Your task to perform on an android device: Do I have any events this weekend? Image 0: 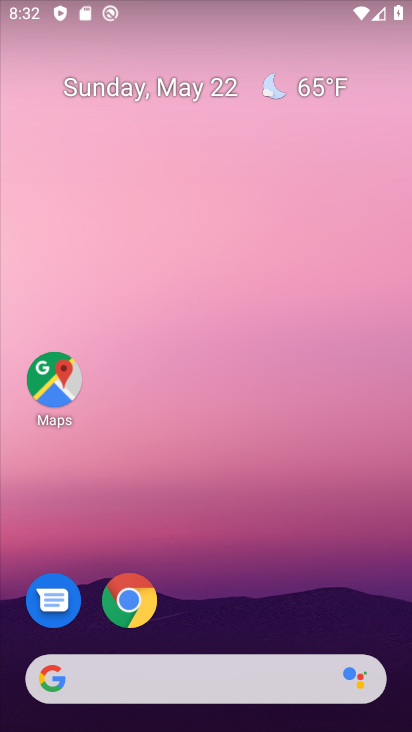
Step 0: drag from (188, 624) to (98, 30)
Your task to perform on an android device: Do I have any events this weekend? Image 1: 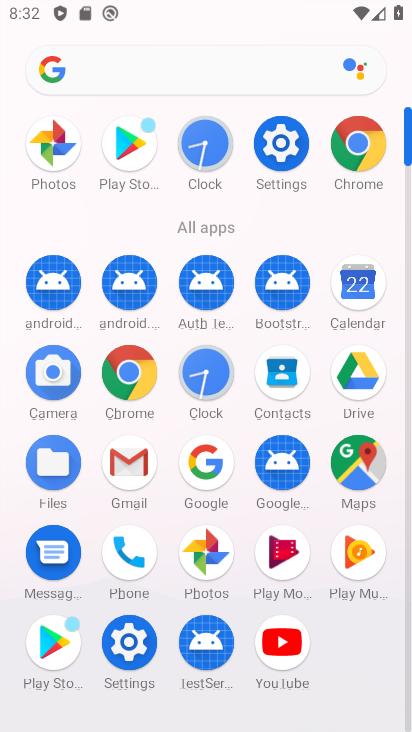
Step 1: click (349, 310)
Your task to perform on an android device: Do I have any events this weekend? Image 2: 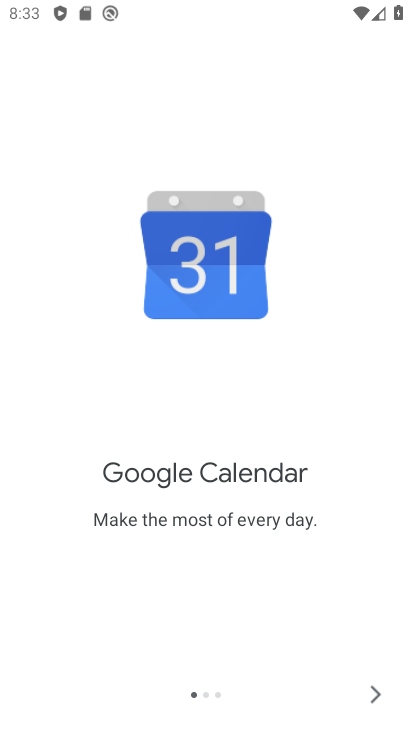
Step 2: click (373, 696)
Your task to perform on an android device: Do I have any events this weekend? Image 3: 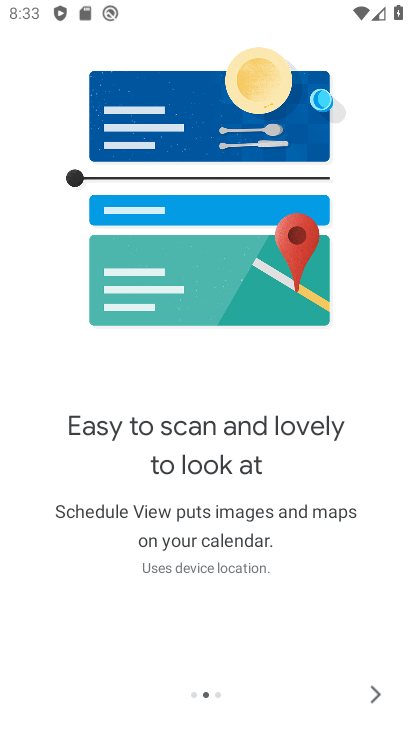
Step 3: click (373, 696)
Your task to perform on an android device: Do I have any events this weekend? Image 4: 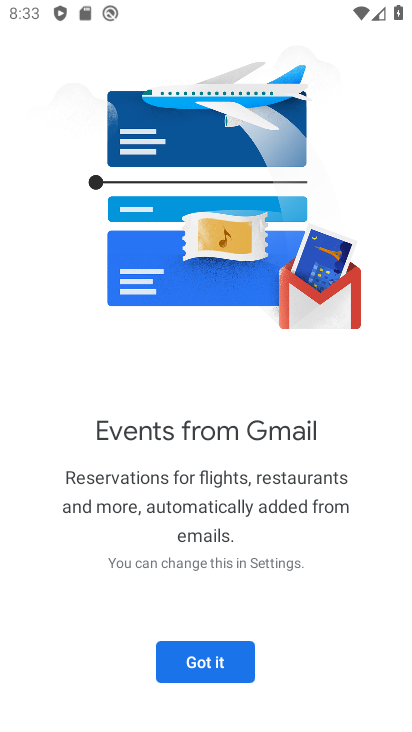
Step 4: click (213, 662)
Your task to perform on an android device: Do I have any events this weekend? Image 5: 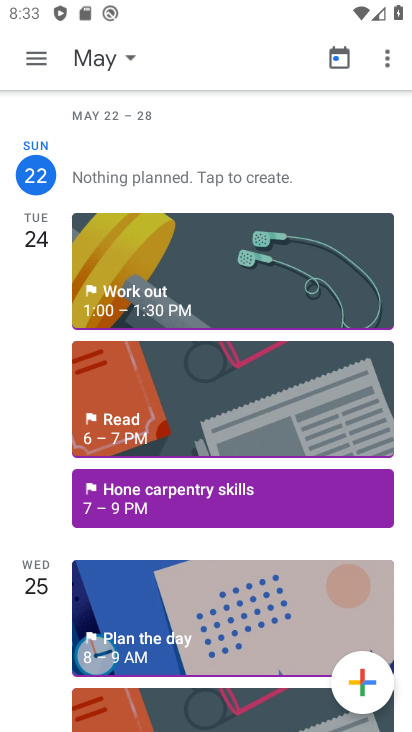
Step 5: task complete